Your task to perform on an android device: Go to Google Image 0: 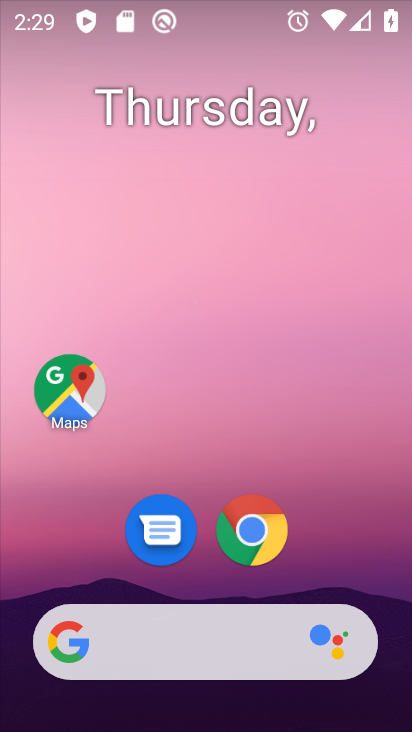
Step 0: drag from (182, 709) to (198, 15)
Your task to perform on an android device: Go to Google Image 1: 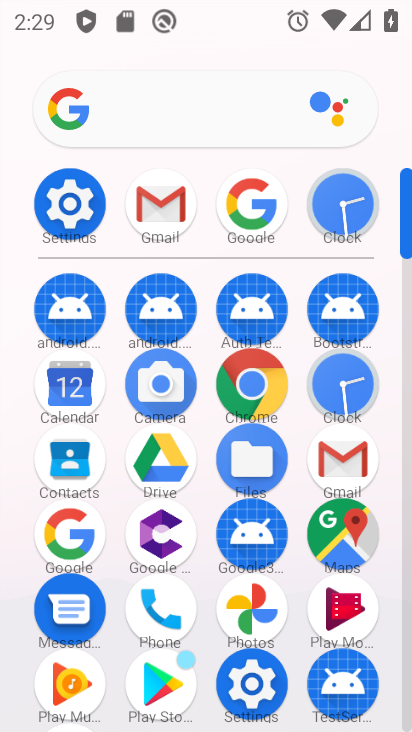
Step 1: click (89, 548)
Your task to perform on an android device: Go to Google Image 2: 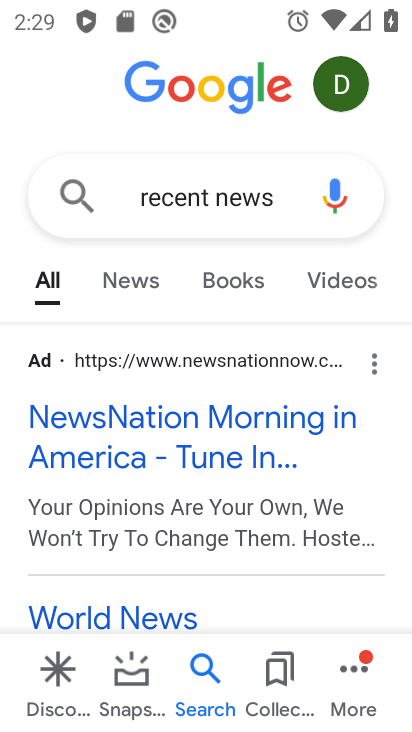
Step 2: task complete